Your task to perform on an android device: Search for vegetarian restaurants on Maps Image 0: 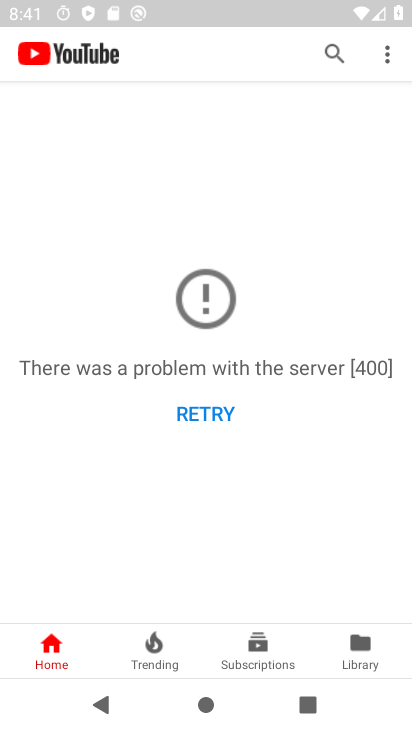
Step 0: press home button
Your task to perform on an android device: Search for vegetarian restaurants on Maps Image 1: 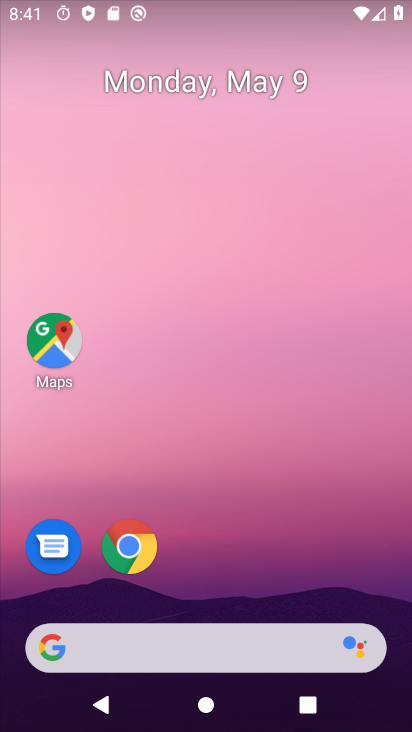
Step 1: click (49, 327)
Your task to perform on an android device: Search for vegetarian restaurants on Maps Image 2: 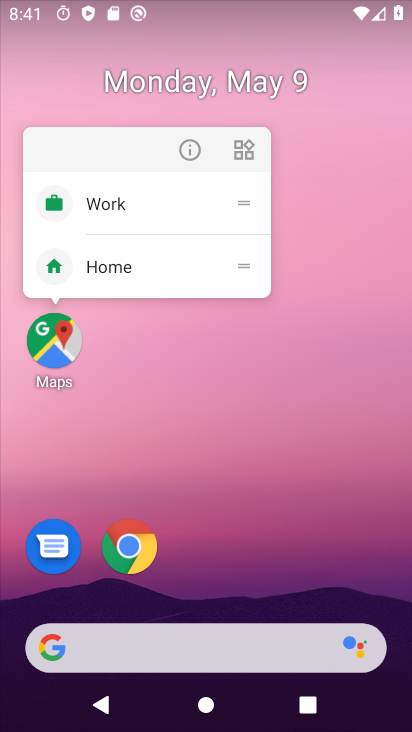
Step 2: click (54, 338)
Your task to perform on an android device: Search for vegetarian restaurants on Maps Image 3: 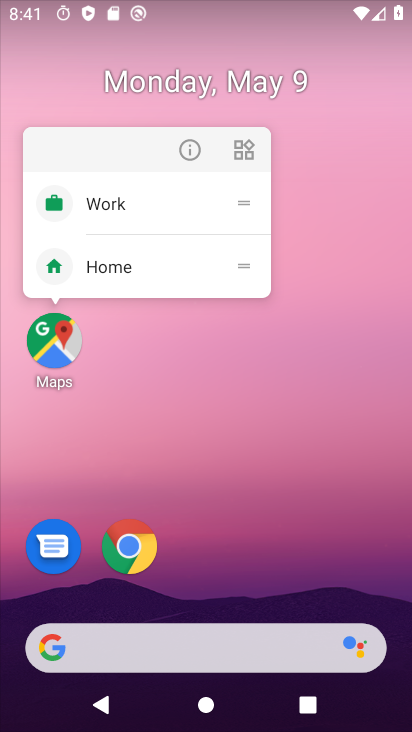
Step 3: click (288, 512)
Your task to perform on an android device: Search for vegetarian restaurants on Maps Image 4: 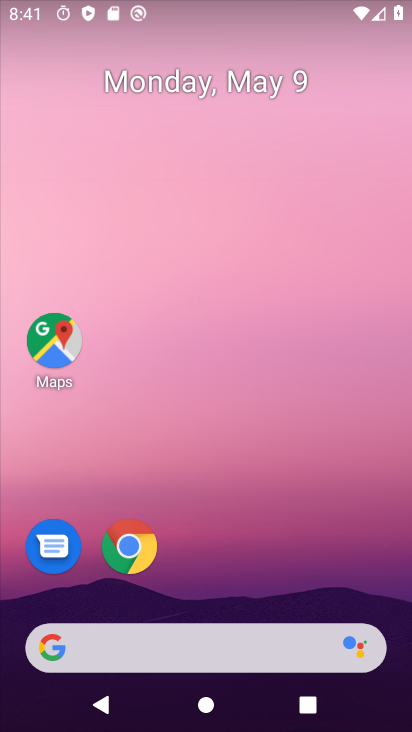
Step 4: drag from (289, 523) to (299, 83)
Your task to perform on an android device: Search for vegetarian restaurants on Maps Image 5: 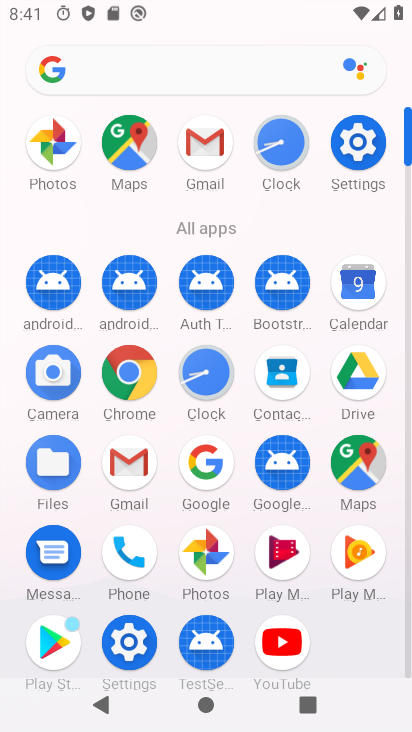
Step 5: click (368, 463)
Your task to perform on an android device: Search for vegetarian restaurants on Maps Image 6: 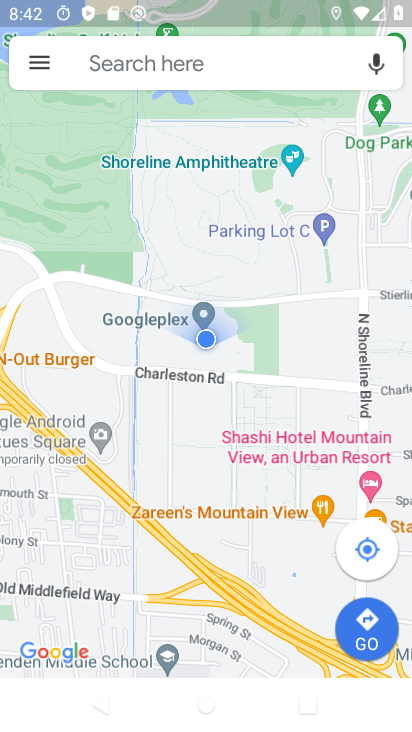
Step 6: click (300, 55)
Your task to perform on an android device: Search for vegetarian restaurants on Maps Image 7: 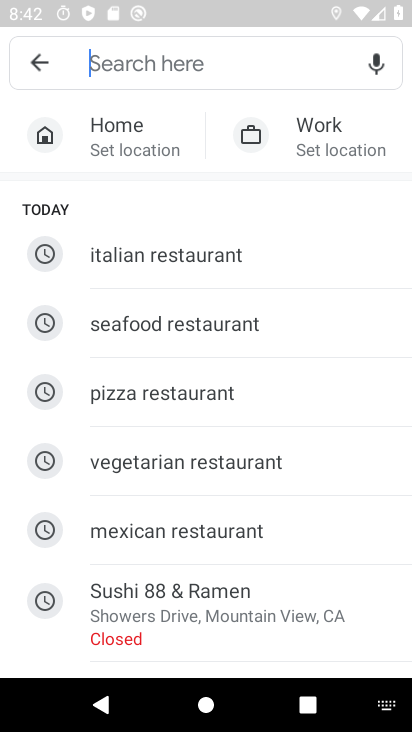
Step 7: type "vegetarian restaurants "
Your task to perform on an android device: Search for vegetarian restaurants on Maps Image 8: 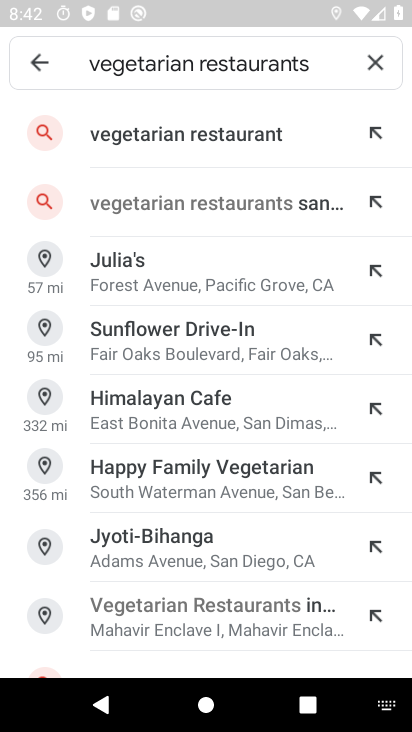
Step 8: click (238, 124)
Your task to perform on an android device: Search for vegetarian restaurants on Maps Image 9: 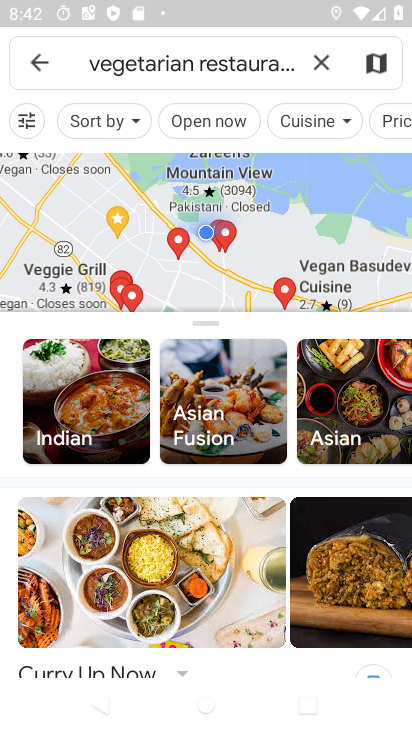
Step 9: task complete